Your task to perform on an android device: Open the map Image 0: 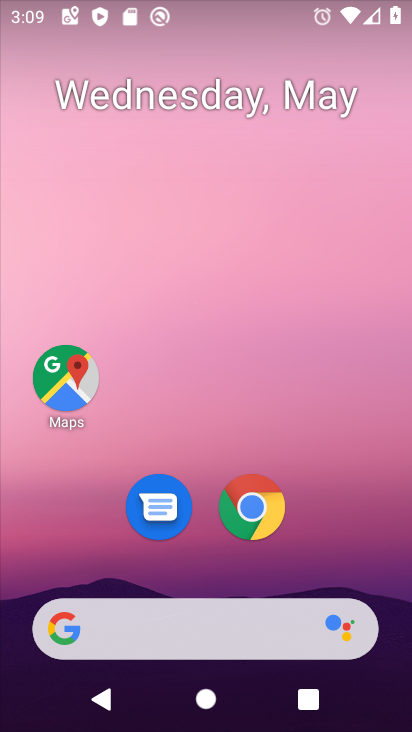
Step 0: click (59, 380)
Your task to perform on an android device: Open the map Image 1: 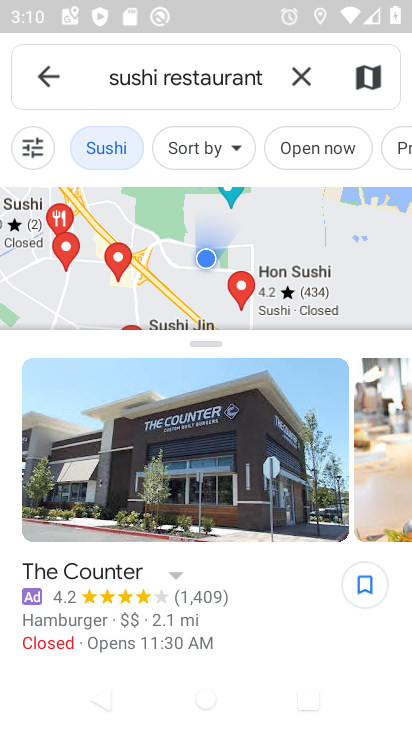
Step 1: task complete